Your task to perform on an android device: Go to privacy settings Image 0: 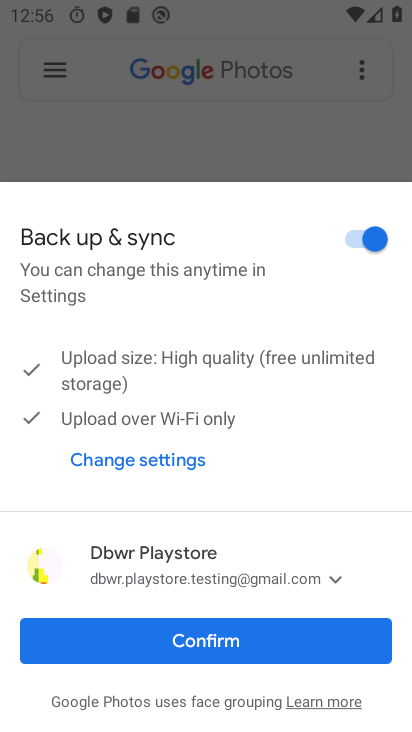
Step 0: press home button
Your task to perform on an android device: Go to privacy settings Image 1: 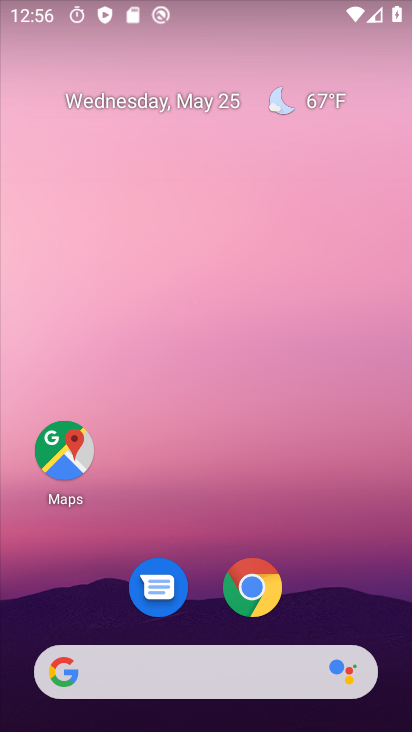
Step 1: drag from (195, 706) to (205, 7)
Your task to perform on an android device: Go to privacy settings Image 2: 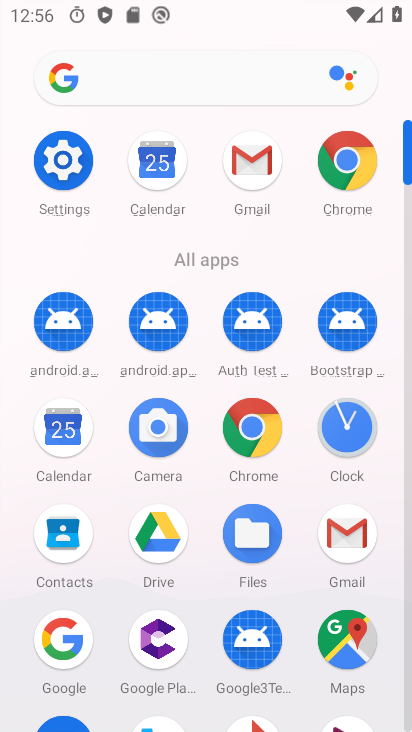
Step 2: click (59, 155)
Your task to perform on an android device: Go to privacy settings Image 3: 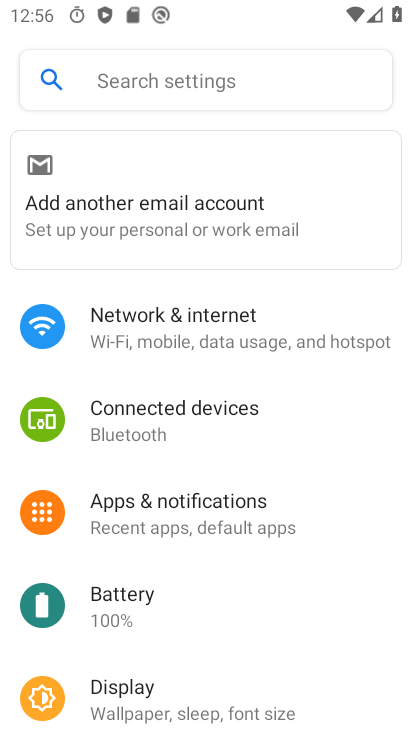
Step 3: drag from (170, 693) to (212, 358)
Your task to perform on an android device: Go to privacy settings Image 4: 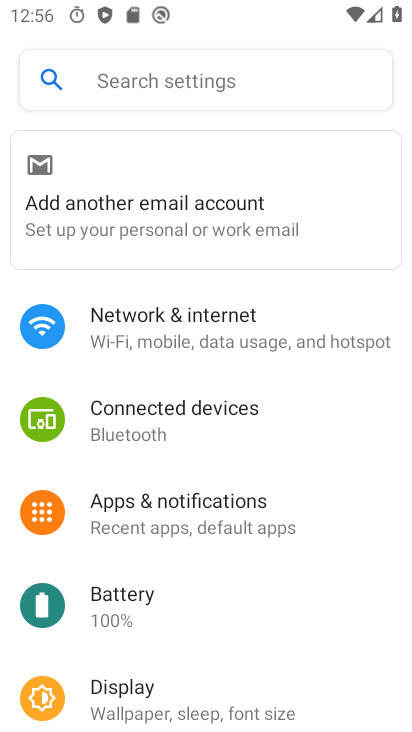
Step 4: drag from (178, 659) to (192, 339)
Your task to perform on an android device: Go to privacy settings Image 5: 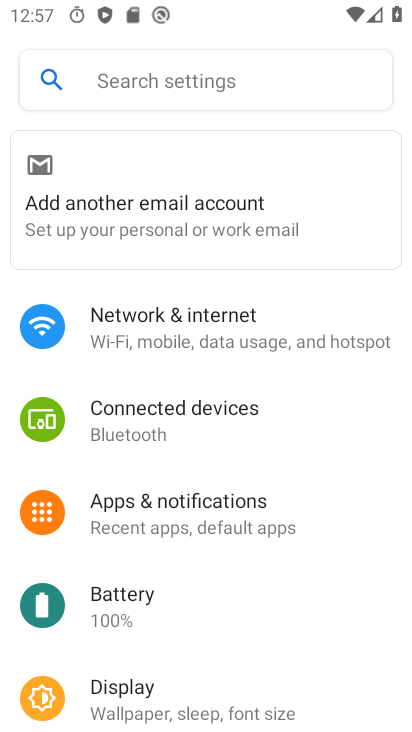
Step 5: drag from (150, 641) to (167, 310)
Your task to perform on an android device: Go to privacy settings Image 6: 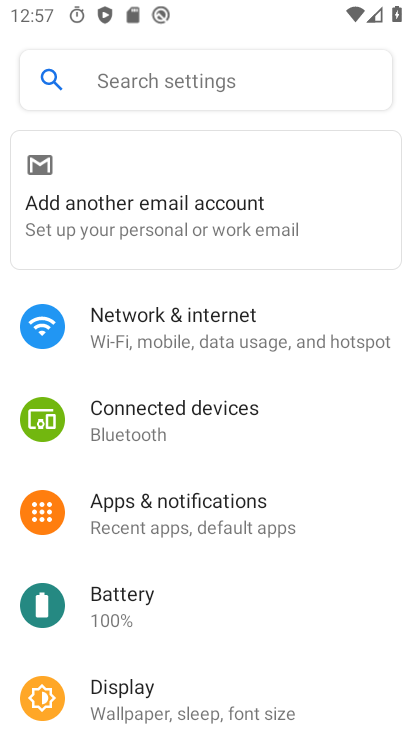
Step 6: drag from (162, 678) to (172, 324)
Your task to perform on an android device: Go to privacy settings Image 7: 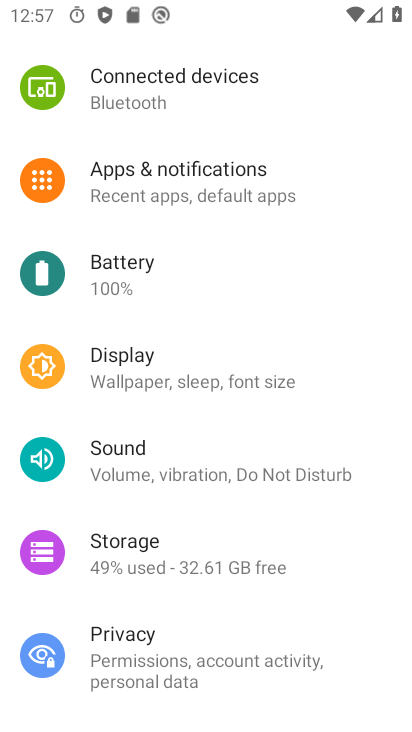
Step 7: click (125, 647)
Your task to perform on an android device: Go to privacy settings Image 8: 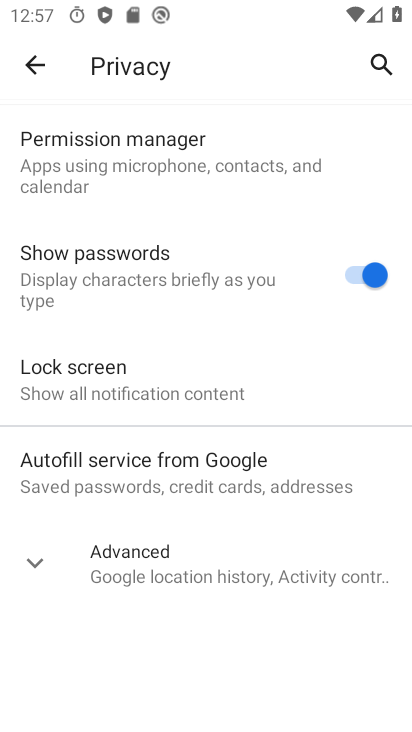
Step 8: task complete